Your task to perform on an android device: turn pop-ups on in chrome Image 0: 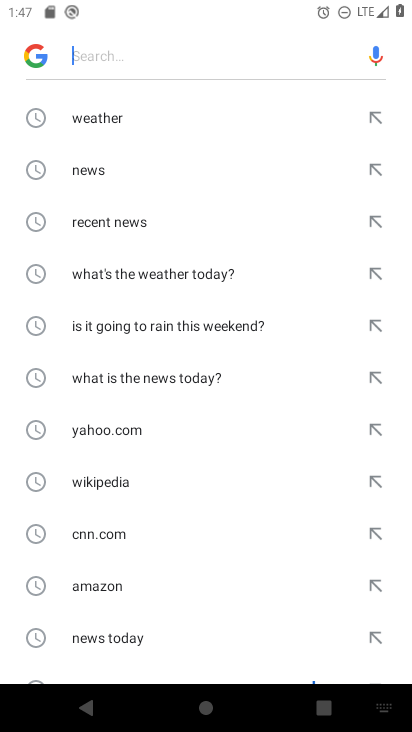
Step 0: press back button
Your task to perform on an android device: turn pop-ups on in chrome Image 1: 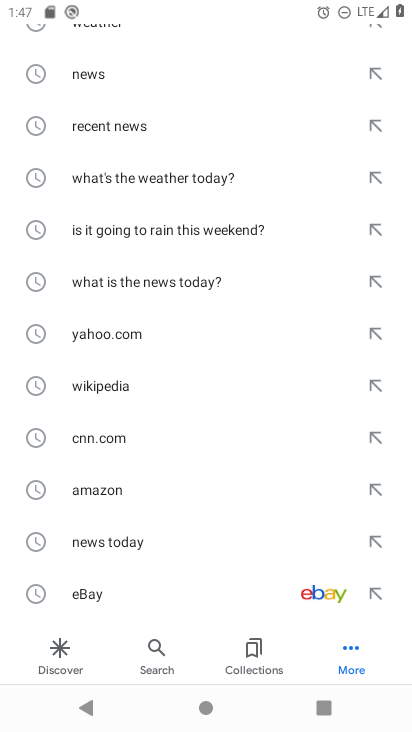
Step 1: press back button
Your task to perform on an android device: turn pop-ups on in chrome Image 2: 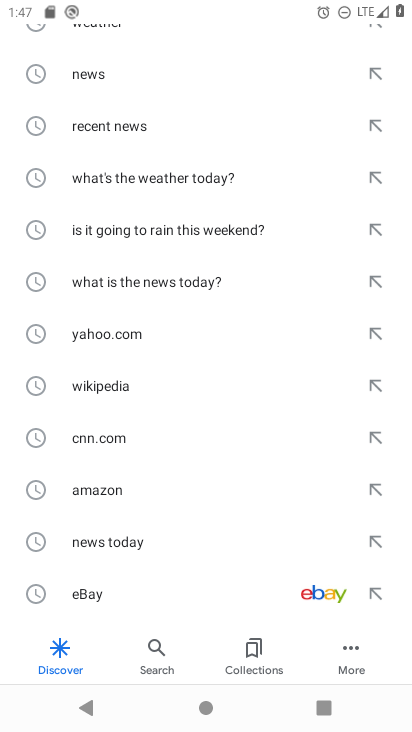
Step 2: press back button
Your task to perform on an android device: turn pop-ups on in chrome Image 3: 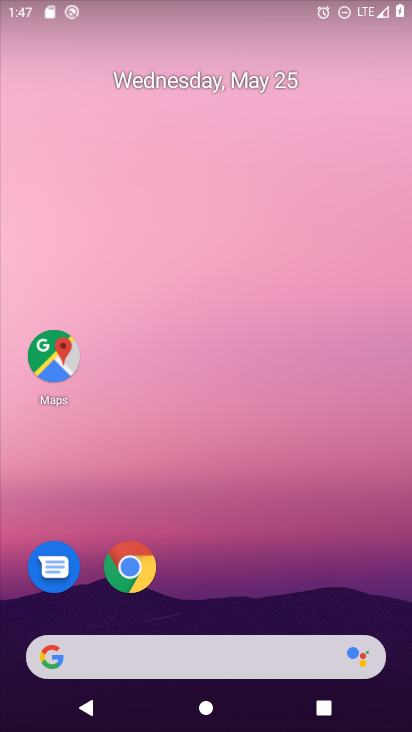
Step 3: click (122, 568)
Your task to perform on an android device: turn pop-ups on in chrome Image 4: 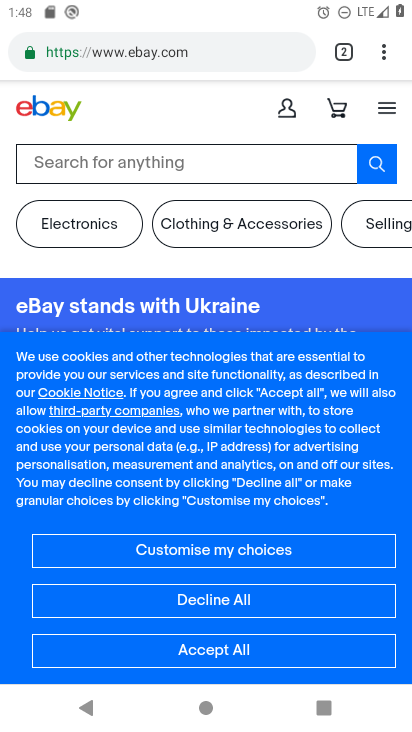
Step 4: click (379, 49)
Your task to perform on an android device: turn pop-ups on in chrome Image 5: 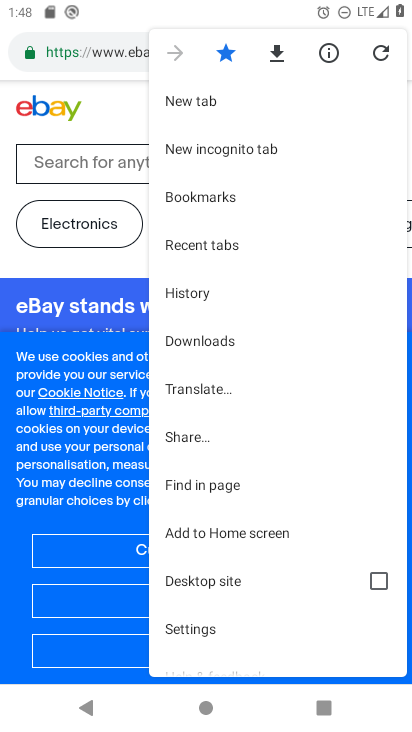
Step 5: click (188, 626)
Your task to perform on an android device: turn pop-ups on in chrome Image 6: 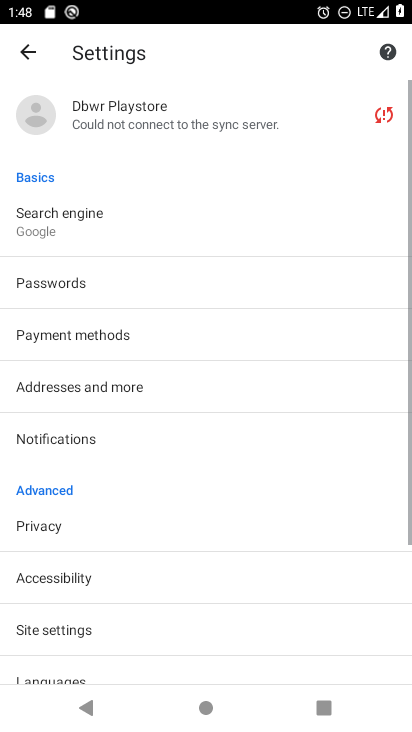
Step 6: drag from (163, 652) to (187, 346)
Your task to perform on an android device: turn pop-ups on in chrome Image 7: 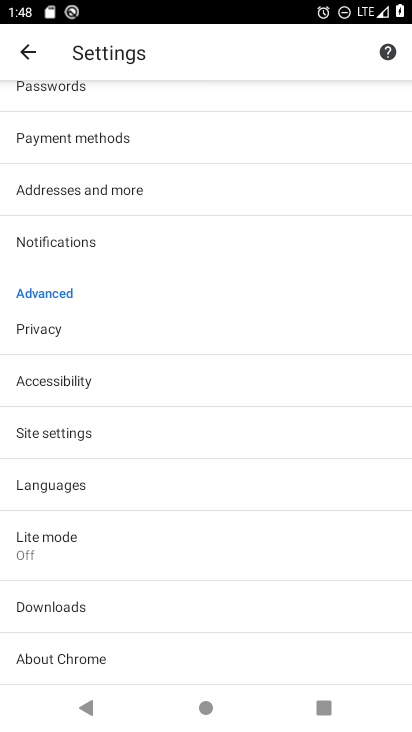
Step 7: click (37, 430)
Your task to perform on an android device: turn pop-ups on in chrome Image 8: 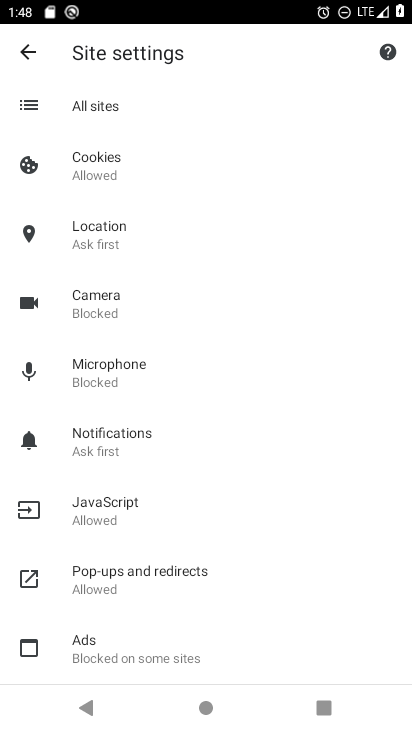
Step 8: click (96, 582)
Your task to perform on an android device: turn pop-ups on in chrome Image 9: 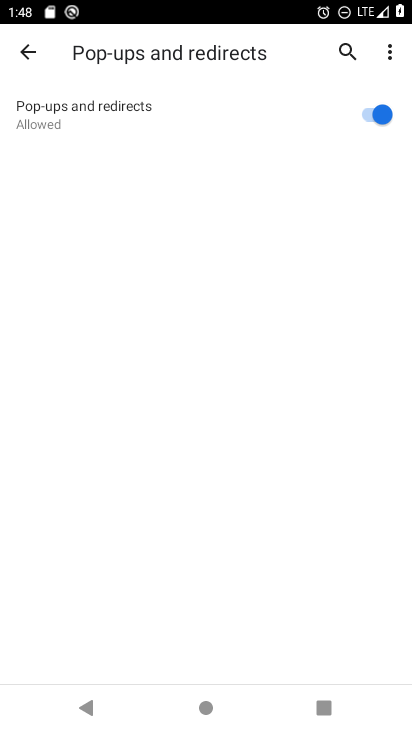
Step 9: task complete